Your task to perform on an android device: Show me productivity apps on the Play Store Image 0: 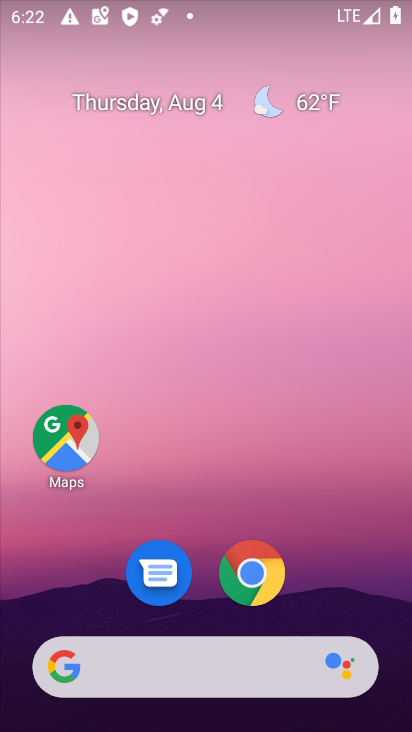
Step 0: press home button
Your task to perform on an android device: Show me productivity apps on the Play Store Image 1: 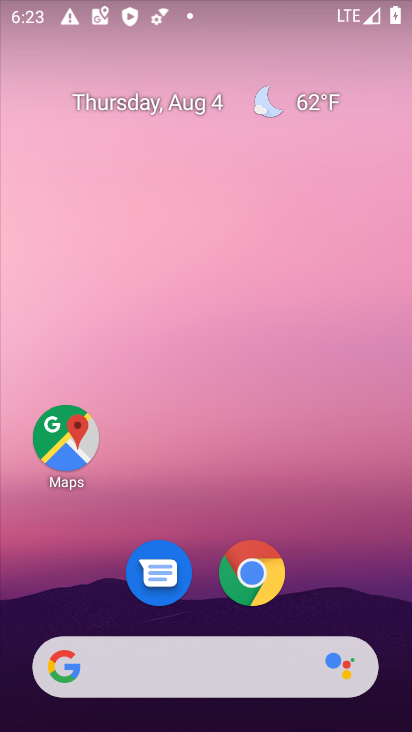
Step 1: drag from (340, 611) to (315, 81)
Your task to perform on an android device: Show me productivity apps on the Play Store Image 2: 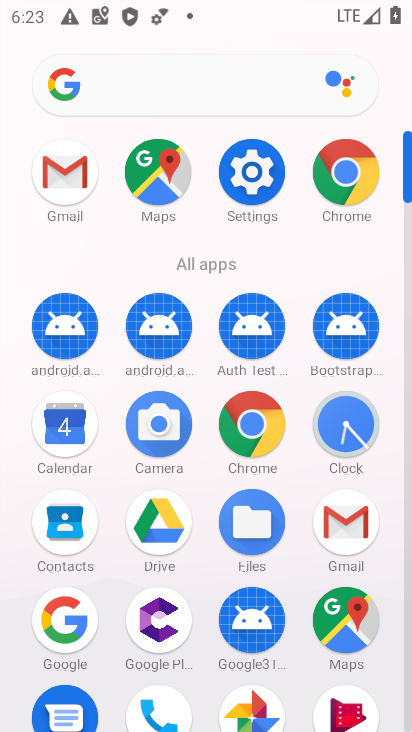
Step 2: drag from (312, 678) to (261, 84)
Your task to perform on an android device: Show me productivity apps on the Play Store Image 3: 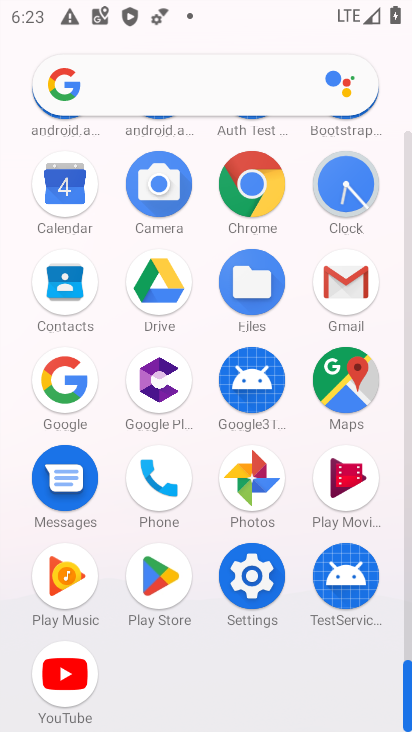
Step 3: click (171, 581)
Your task to perform on an android device: Show me productivity apps on the Play Store Image 4: 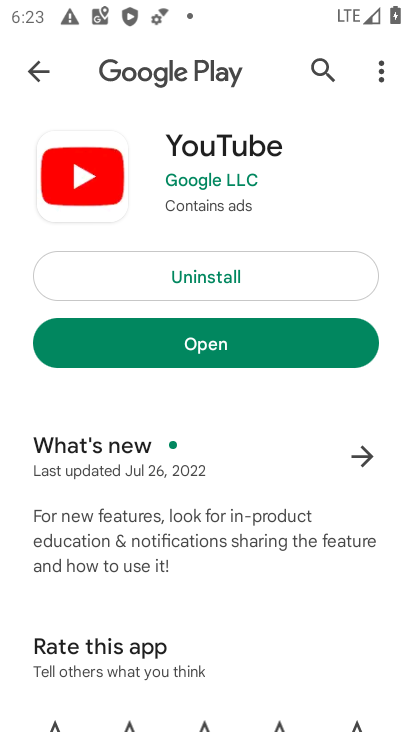
Step 4: click (31, 70)
Your task to perform on an android device: Show me productivity apps on the Play Store Image 5: 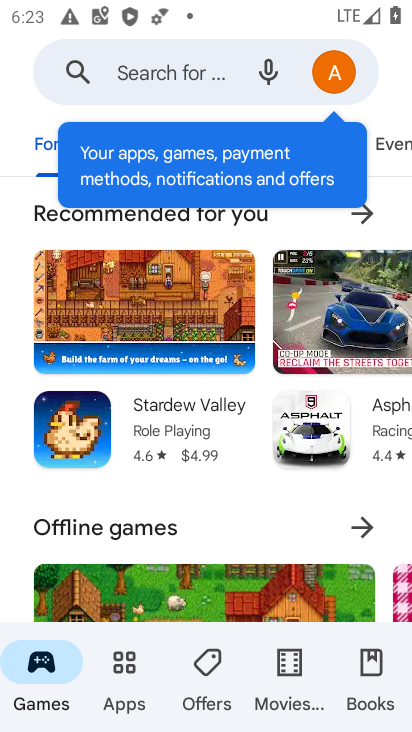
Step 5: click (125, 666)
Your task to perform on an android device: Show me productivity apps on the Play Store Image 6: 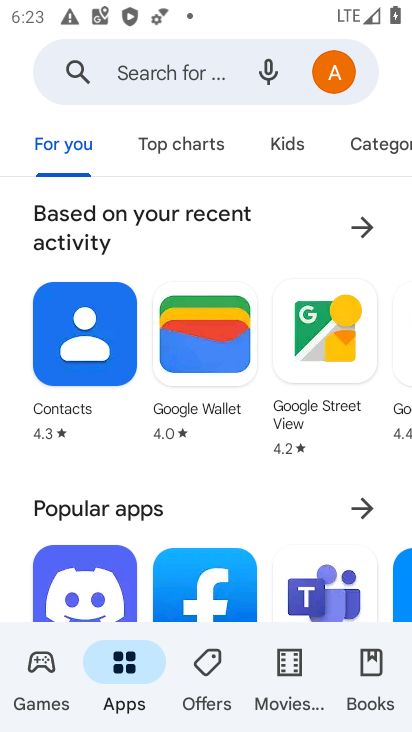
Step 6: click (374, 141)
Your task to perform on an android device: Show me productivity apps on the Play Store Image 7: 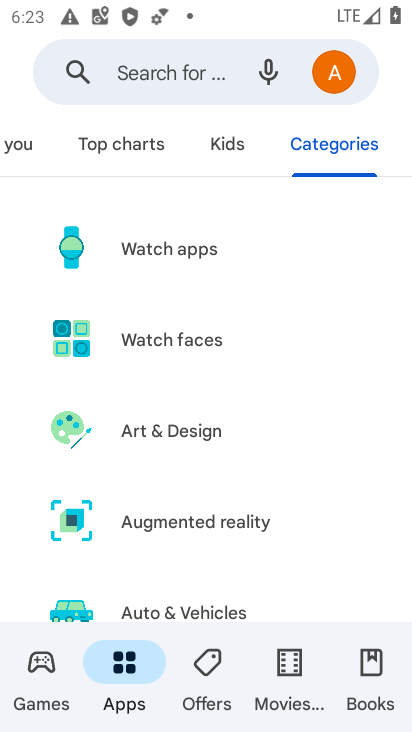
Step 7: drag from (276, 562) to (192, 140)
Your task to perform on an android device: Show me productivity apps on the Play Store Image 8: 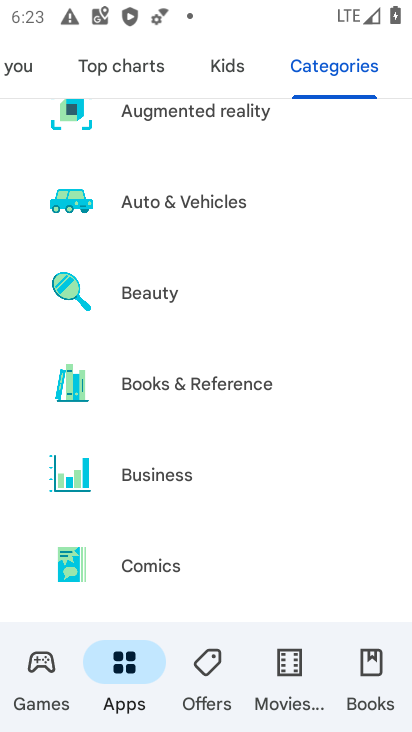
Step 8: drag from (363, 443) to (181, 20)
Your task to perform on an android device: Show me productivity apps on the Play Store Image 9: 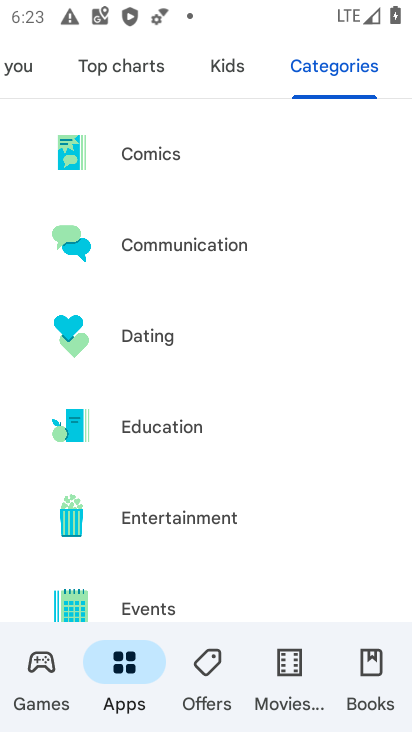
Step 9: drag from (347, 575) to (286, 80)
Your task to perform on an android device: Show me productivity apps on the Play Store Image 10: 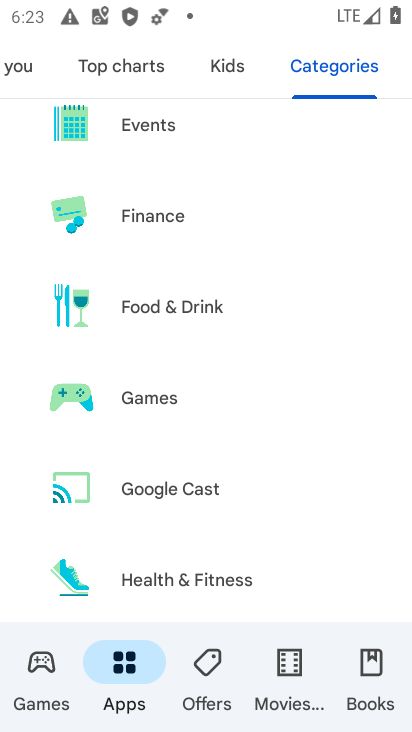
Step 10: drag from (392, 347) to (312, 33)
Your task to perform on an android device: Show me productivity apps on the Play Store Image 11: 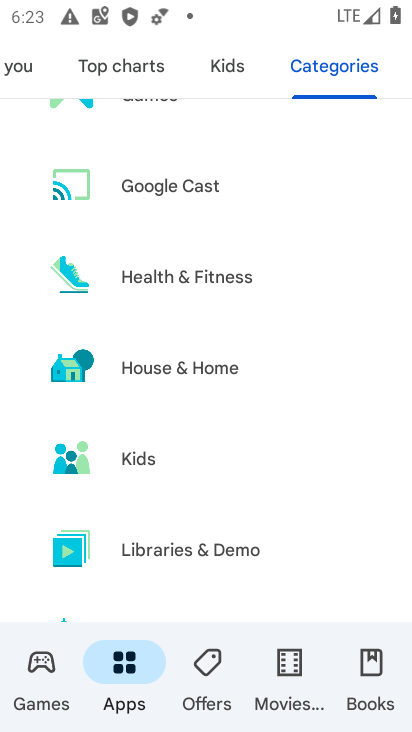
Step 11: drag from (340, 547) to (237, 4)
Your task to perform on an android device: Show me productivity apps on the Play Store Image 12: 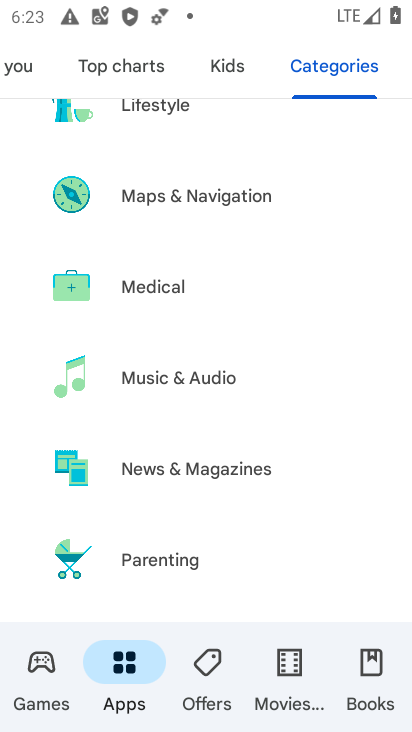
Step 12: drag from (281, 545) to (252, 139)
Your task to perform on an android device: Show me productivity apps on the Play Store Image 13: 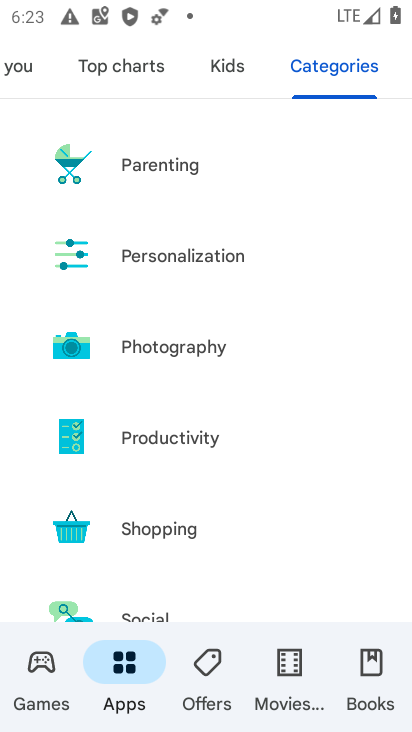
Step 13: click (190, 438)
Your task to perform on an android device: Show me productivity apps on the Play Store Image 14: 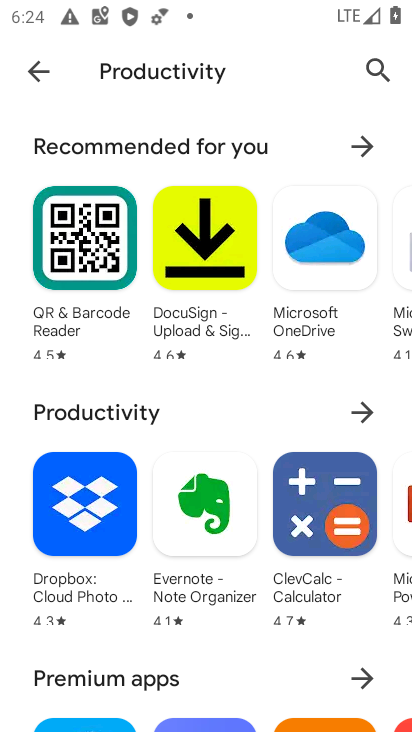
Step 14: task complete